Your task to perform on an android device: What does the iPhone 8 look like? Image 0: 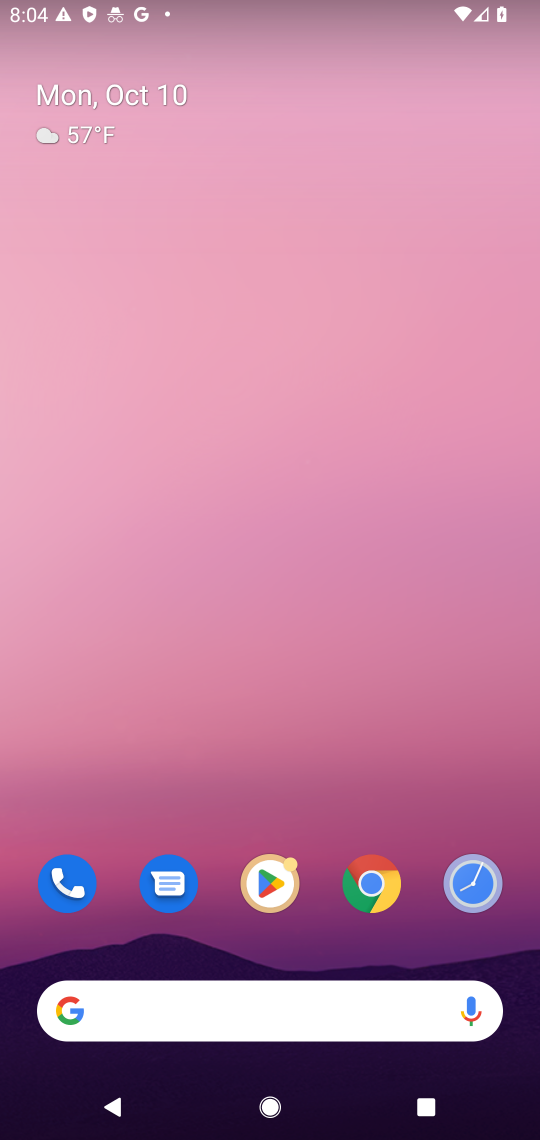
Step 0: drag from (266, 946) to (309, 361)
Your task to perform on an android device: What does the iPhone 8 look like? Image 1: 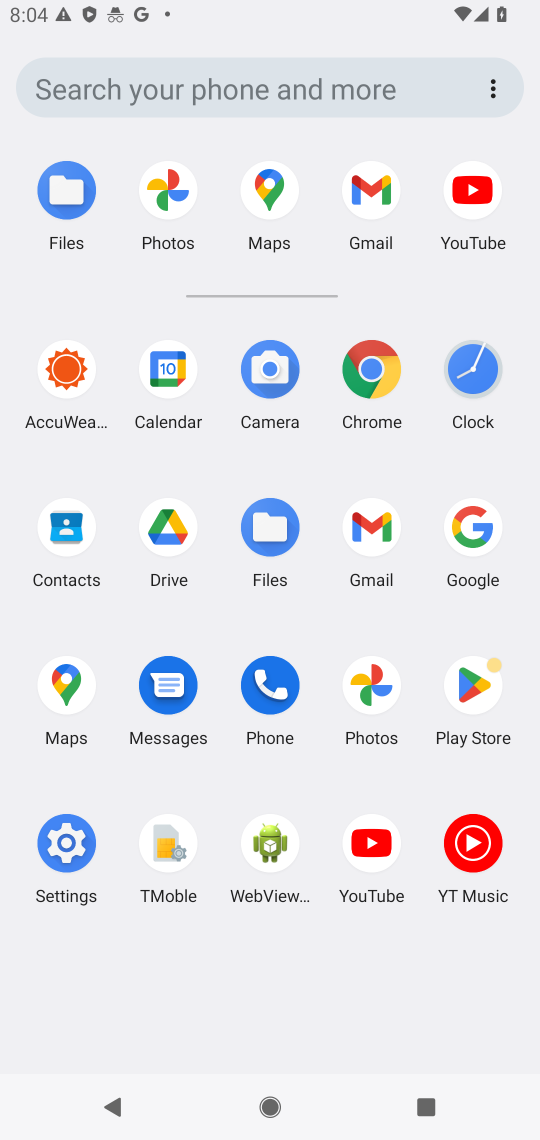
Step 1: click (483, 536)
Your task to perform on an android device: What does the iPhone 8 look like? Image 2: 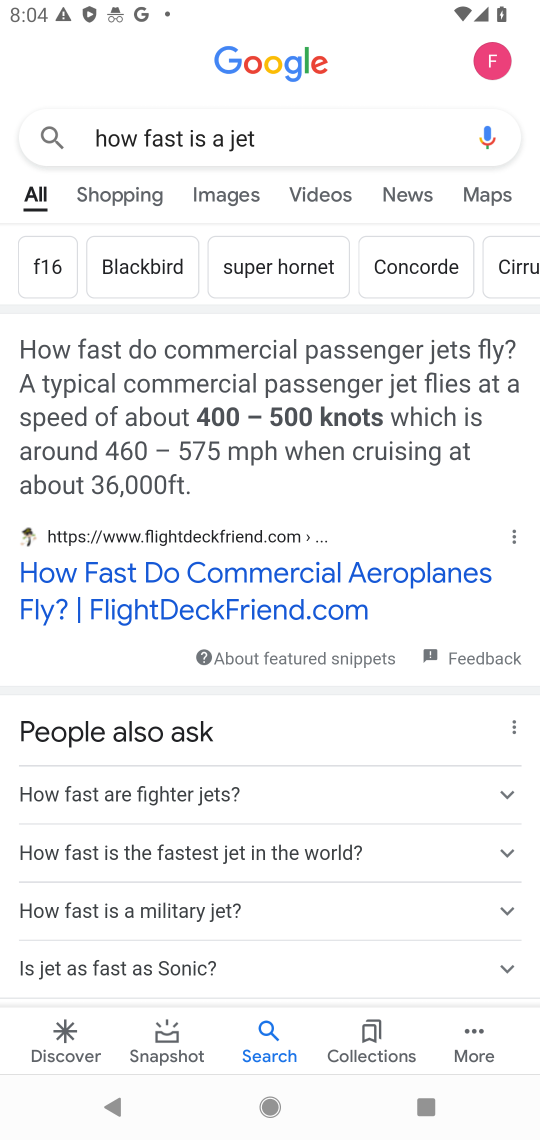
Step 2: click (368, 140)
Your task to perform on an android device: What does the iPhone 8 look like? Image 3: 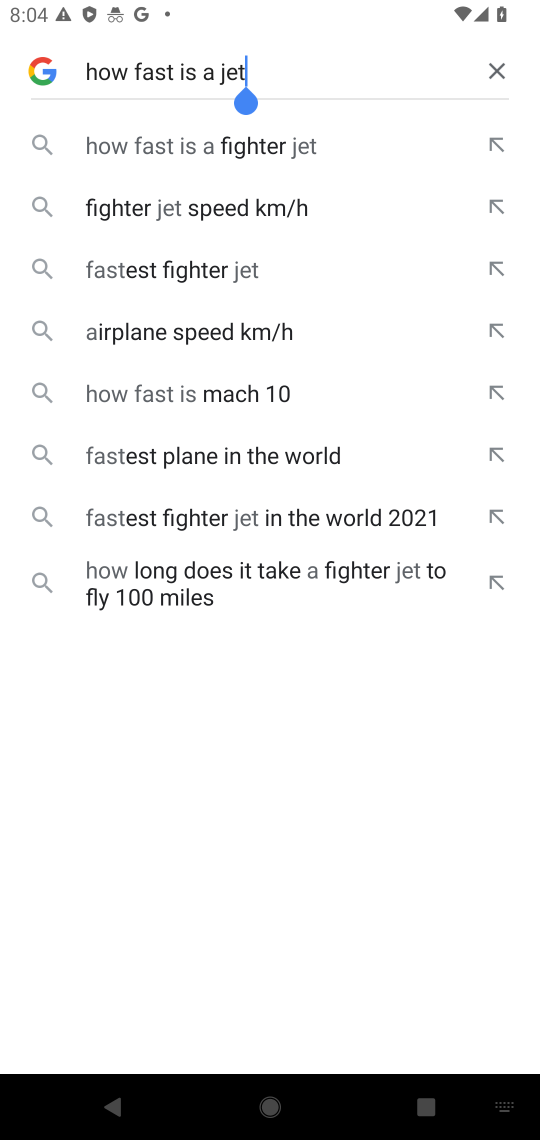
Step 3: click (498, 71)
Your task to perform on an android device: What does the iPhone 8 look like? Image 4: 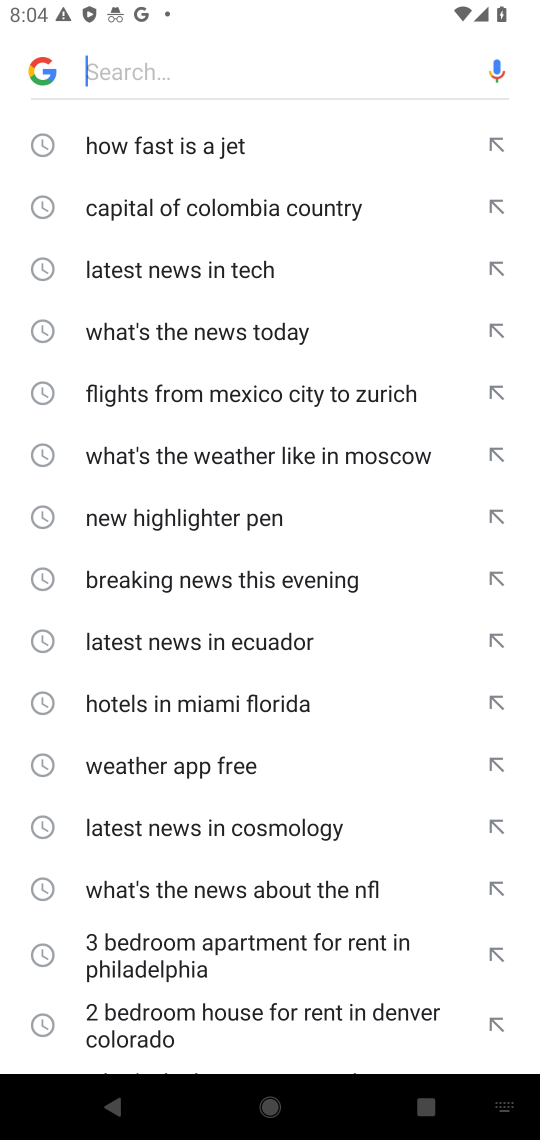
Step 4: type "What does the iPhone 8 look like?"
Your task to perform on an android device: What does the iPhone 8 look like? Image 5: 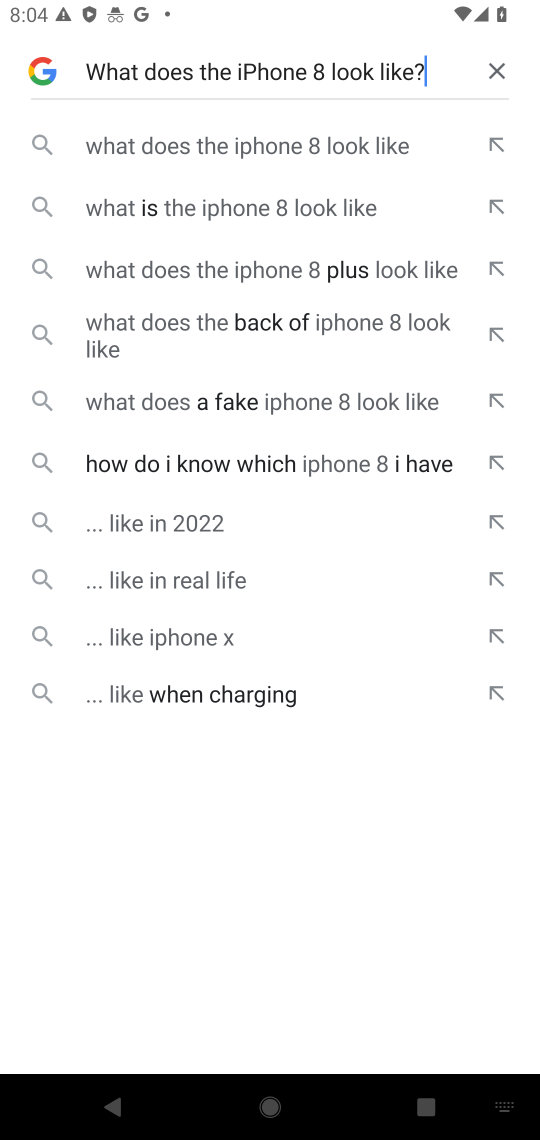
Step 5: click (366, 147)
Your task to perform on an android device: What does the iPhone 8 look like? Image 6: 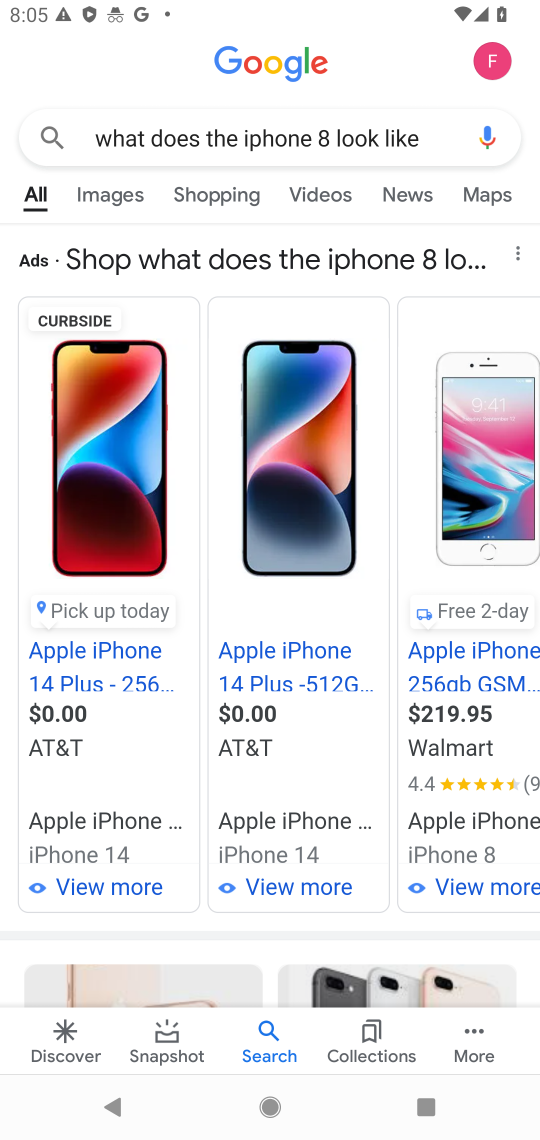
Step 6: task complete